Your task to perform on an android device: add a contact Image 0: 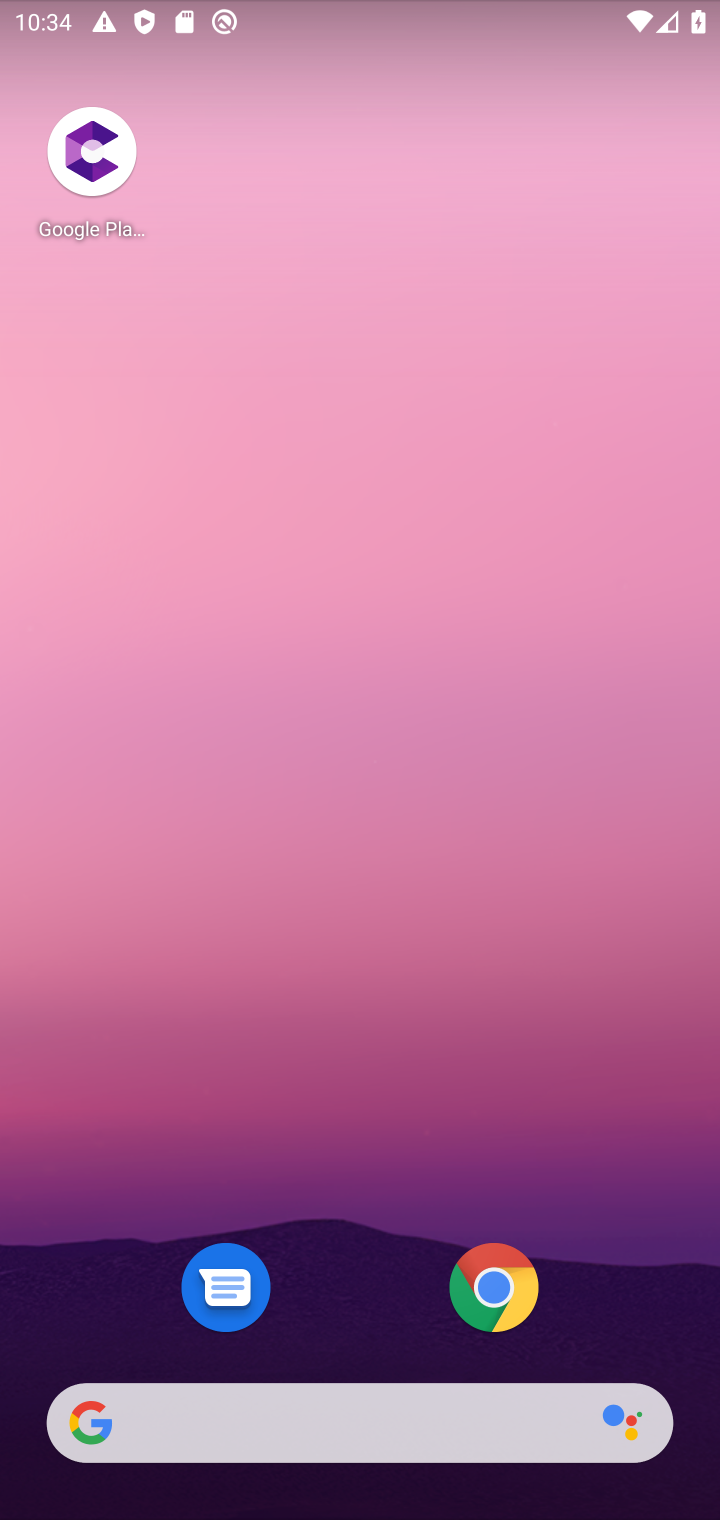
Step 0: drag from (652, 1334) to (556, 156)
Your task to perform on an android device: add a contact Image 1: 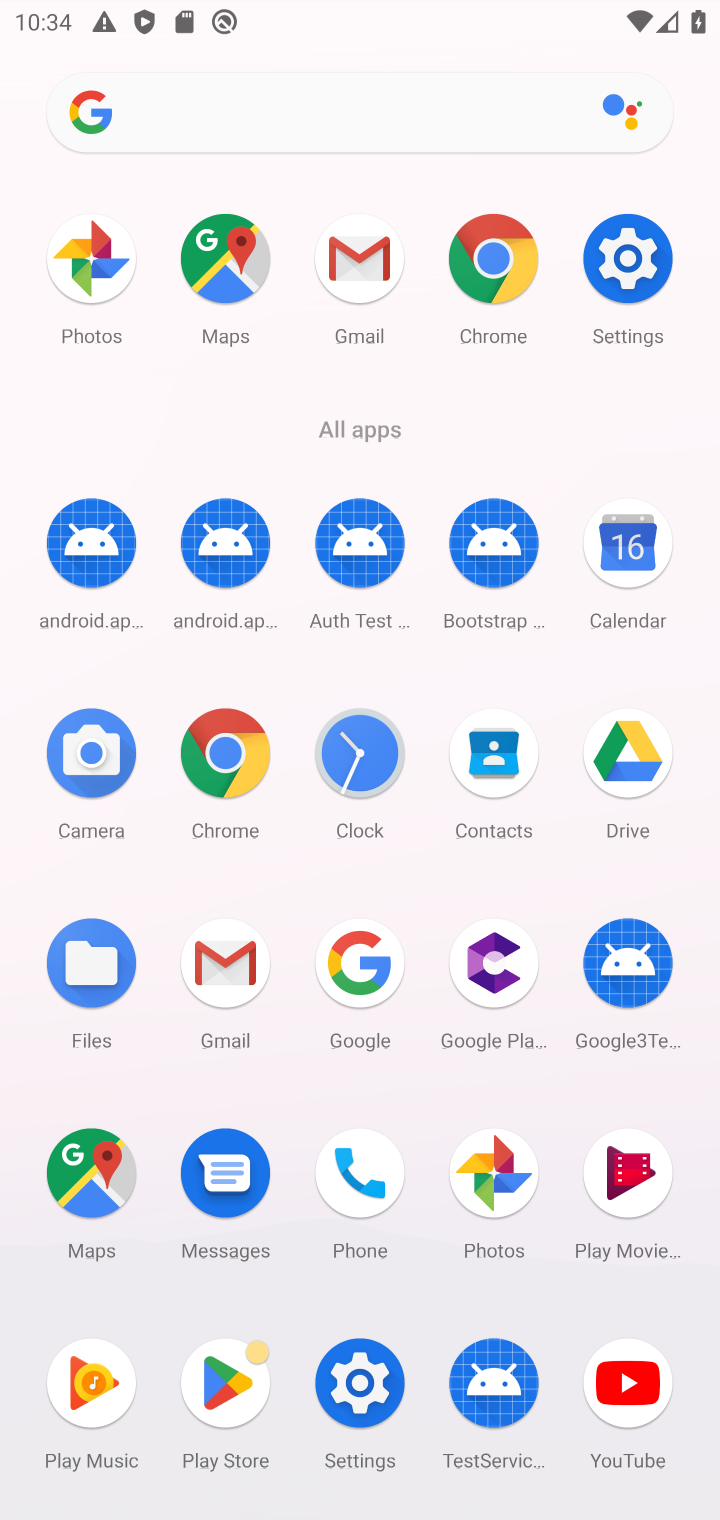
Step 1: click (494, 767)
Your task to perform on an android device: add a contact Image 2: 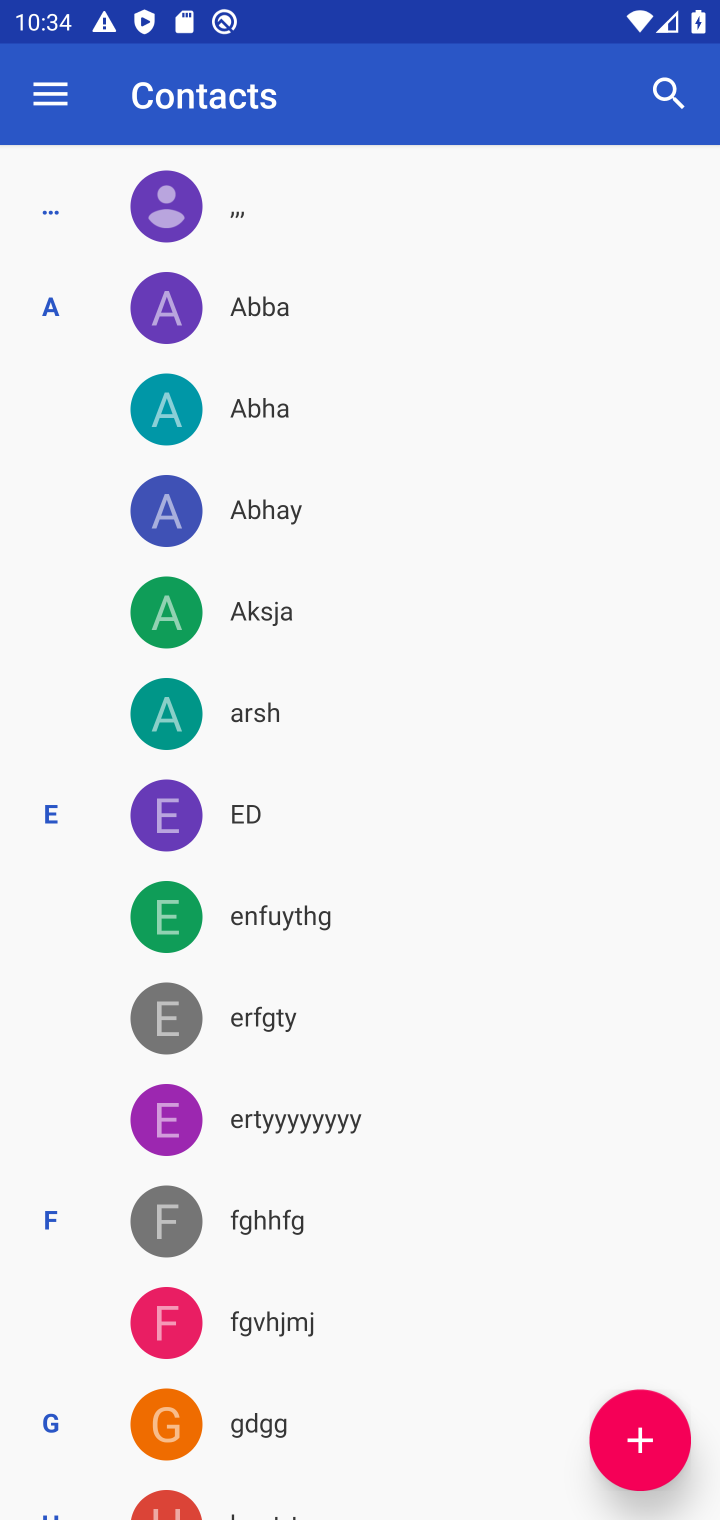
Step 2: click (640, 1438)
Your task to perform on an android device: add a contact Image 3: 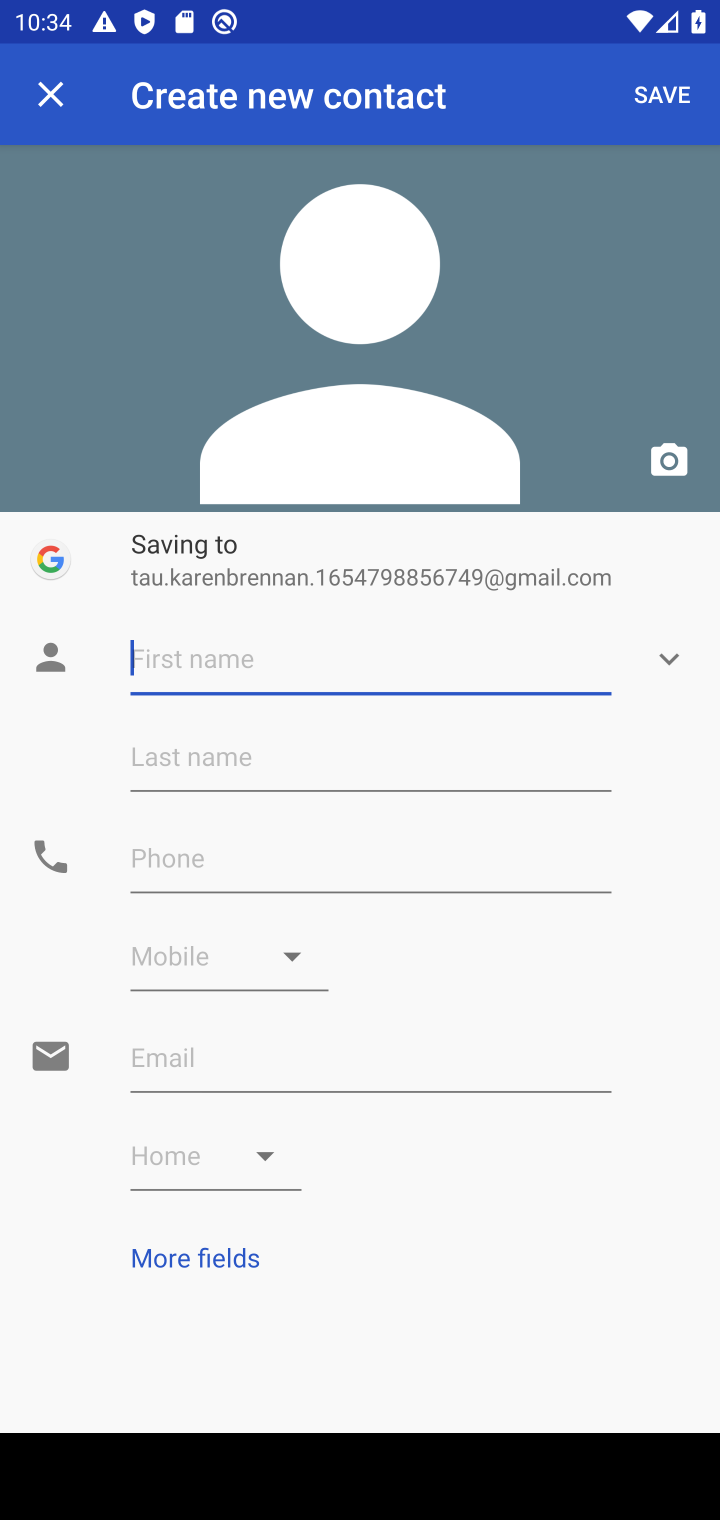
Step 3: type "mbvghftyu"
Your task to perform on an android device: add a contact Image 4: 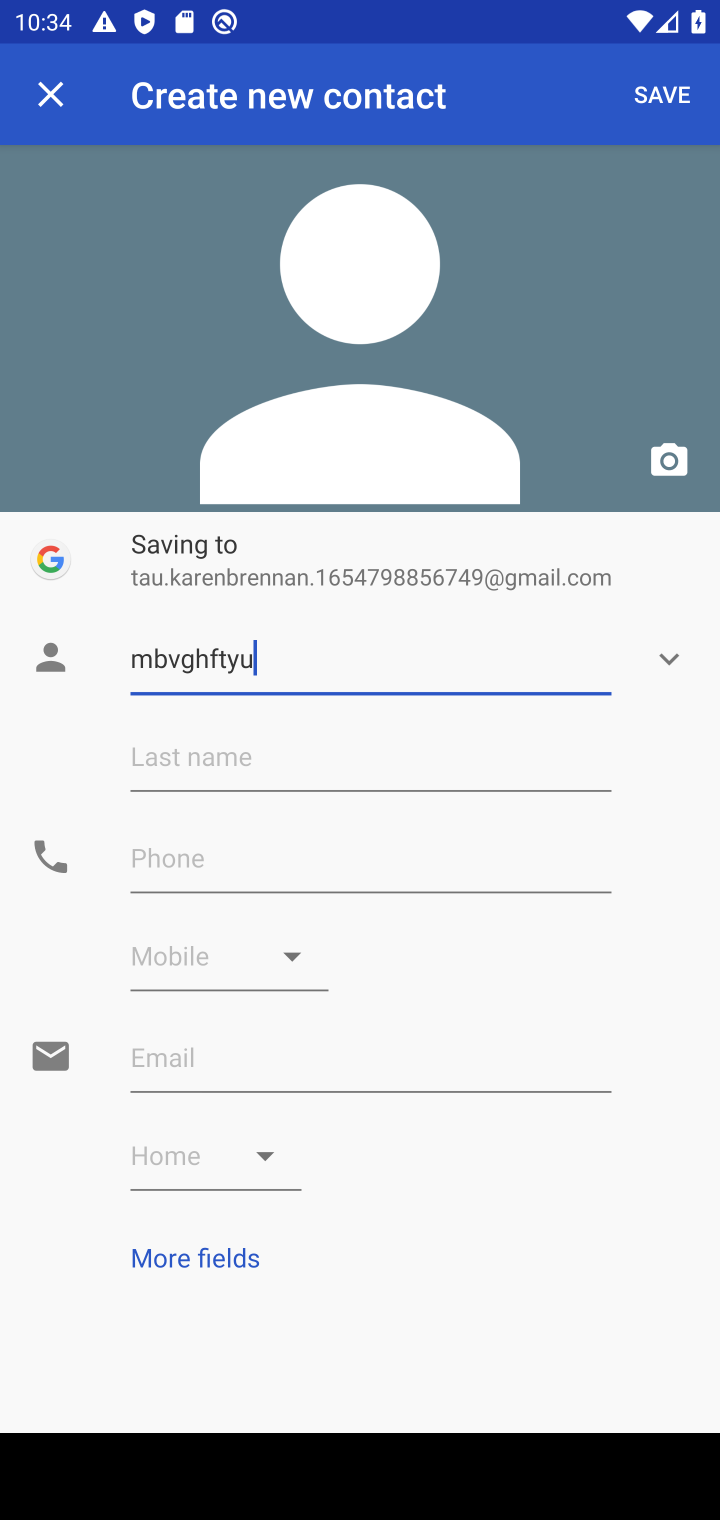
Step 4: click (194, 864)
Your task to perform on an android device: add a contact Image 5: 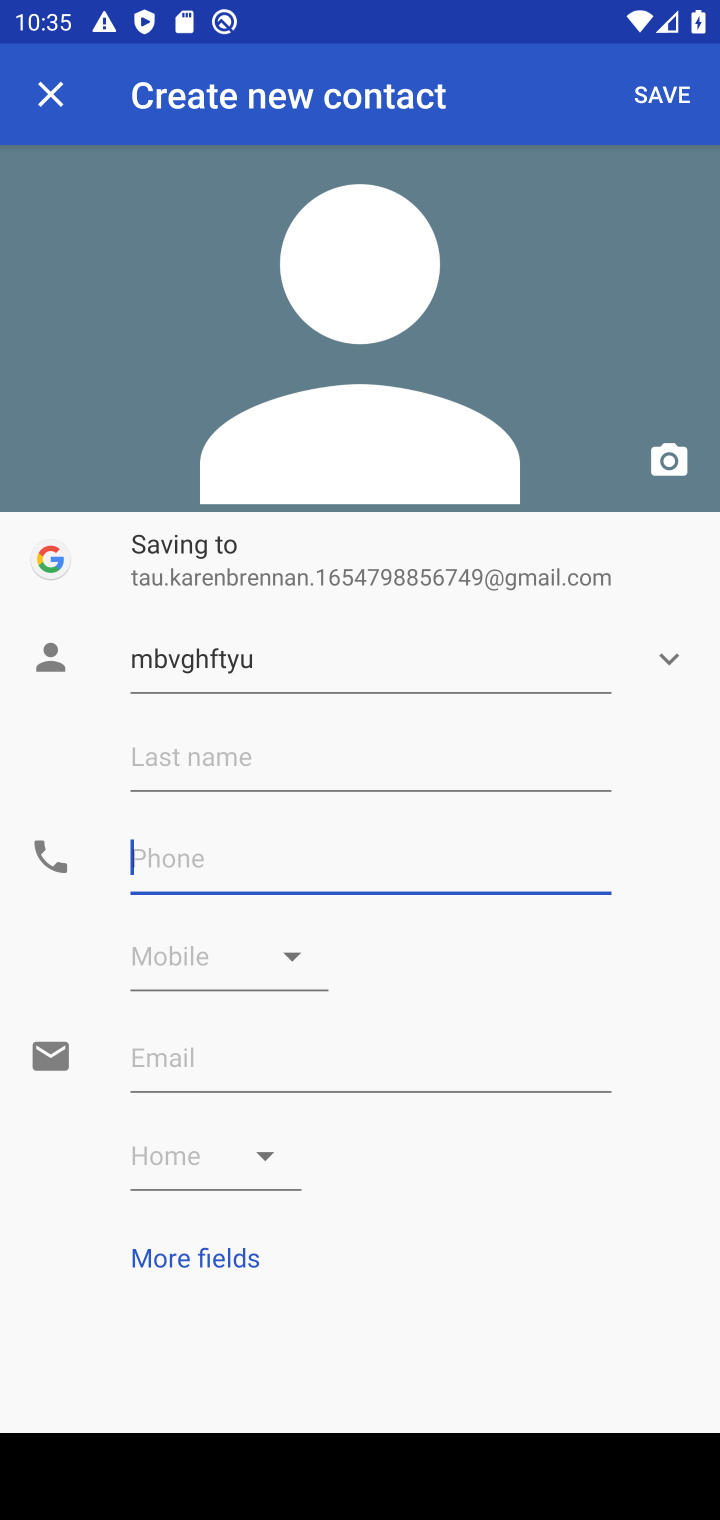
Step 5: type "098754768"
Your task to perform on an android device: add a contact Image 6: 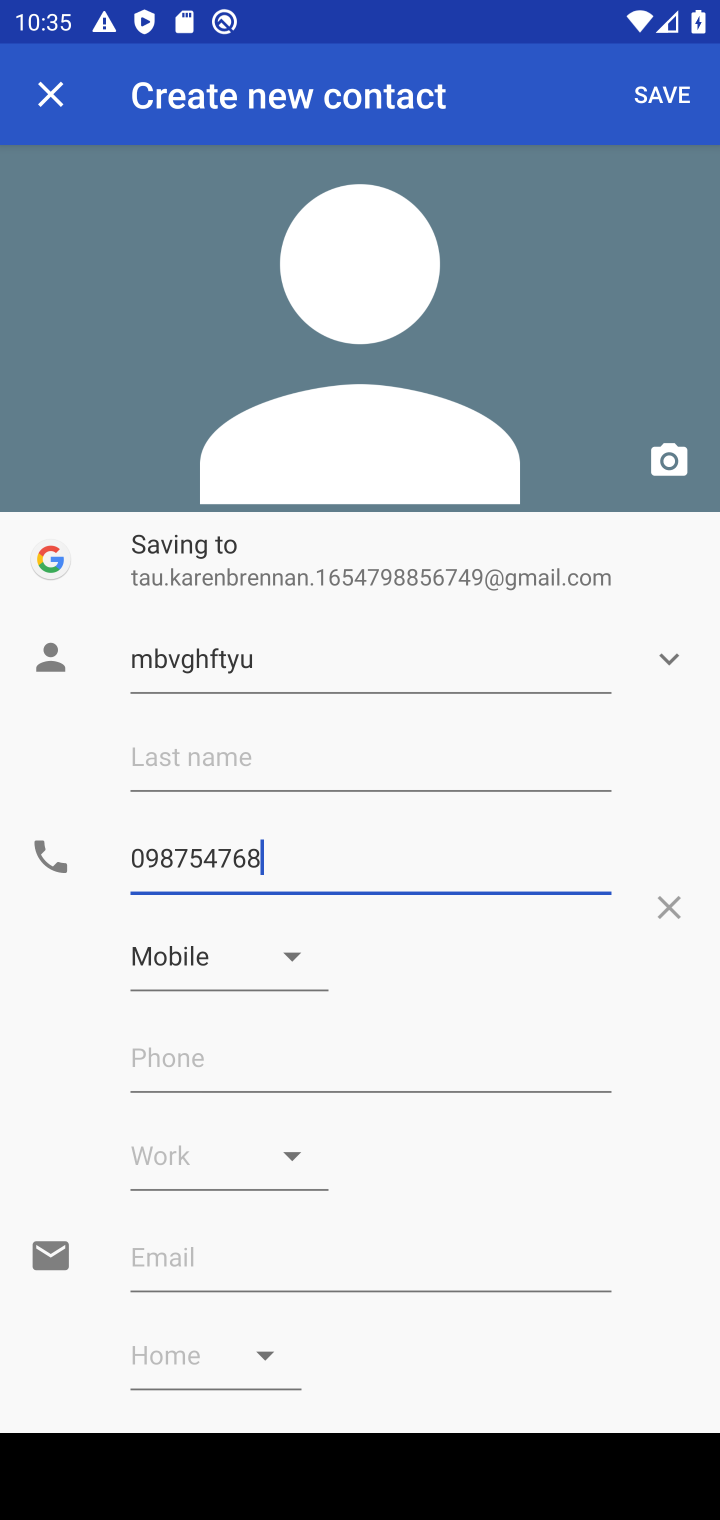
Step 6: click (647, 87)
Your task to perform on an android device: add a contact Image 7: 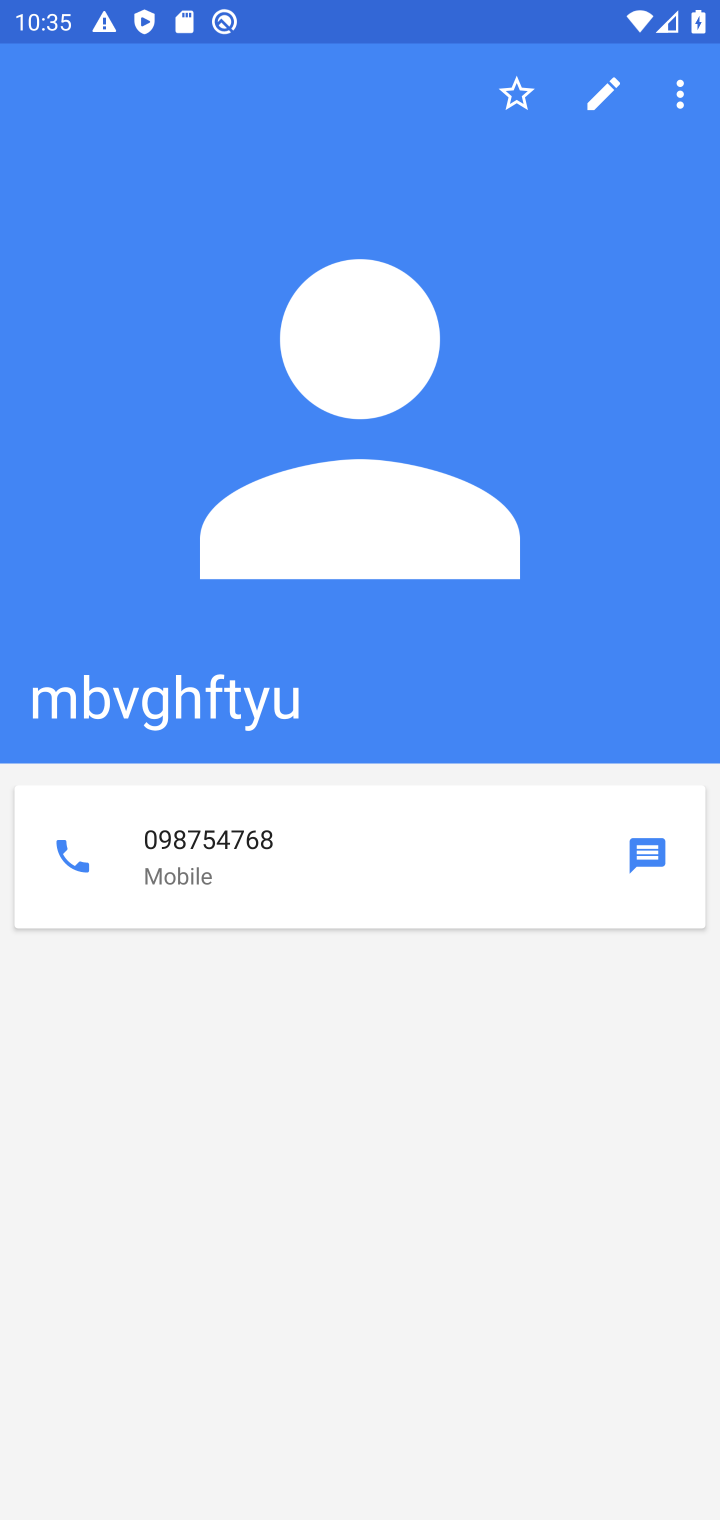
Step 7: task complete